Your task to perform on an android device: Search for seafood restaurants on Google Maps Image 0: 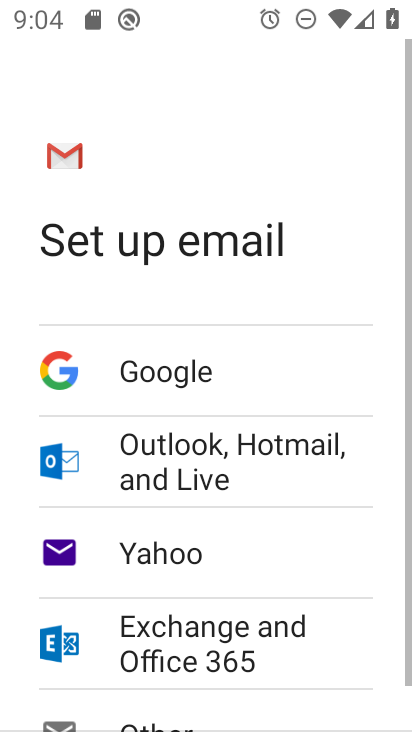
Step 0: press home button
Your task to perform on an android device: Search for seafood restaurants on Google Maps Image 1: 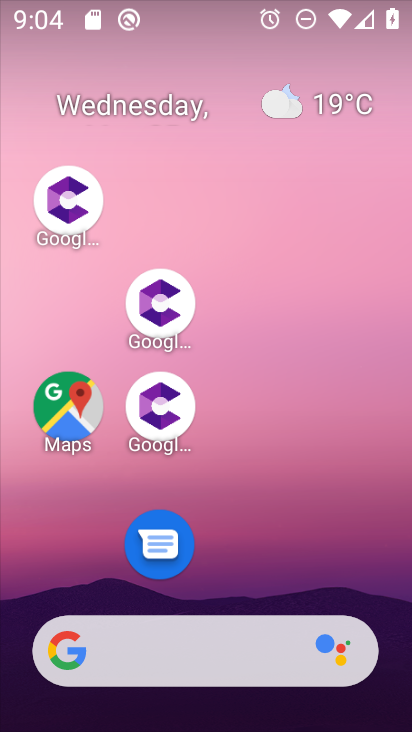
Step 1: click (55, 397)
Your task to perform on an android device: Search for seafood restaurants on Google Maps Image 2: 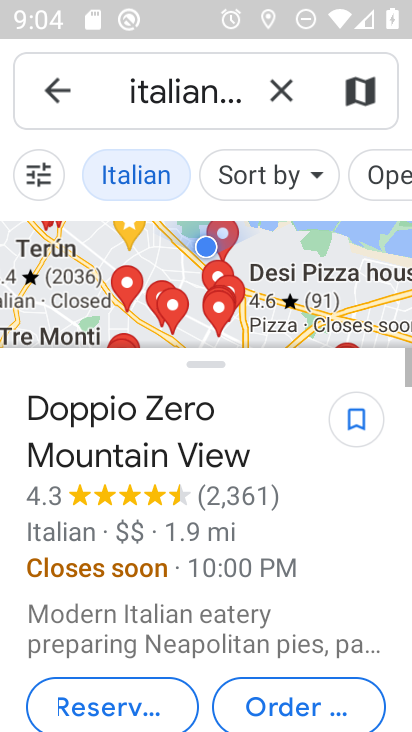
Step 2: click (282, 93)
Your task to perform on an android device: Search for seafood restaurants on Google Maps Image 3: 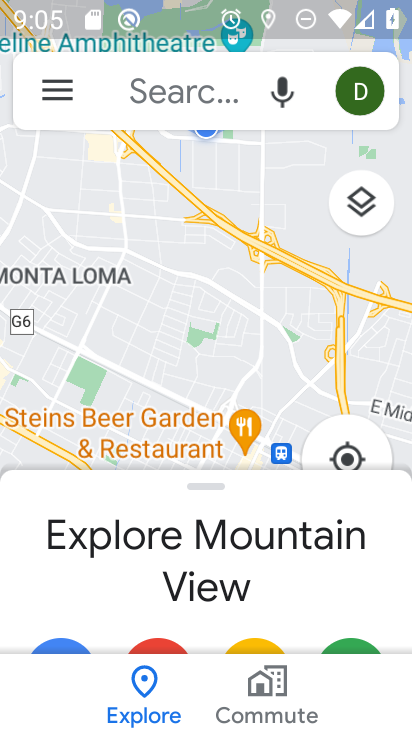
Step 3: click (134, 81)
Your task to perform on an android device: Search for seafood restaurants on Google Maps Image 4: 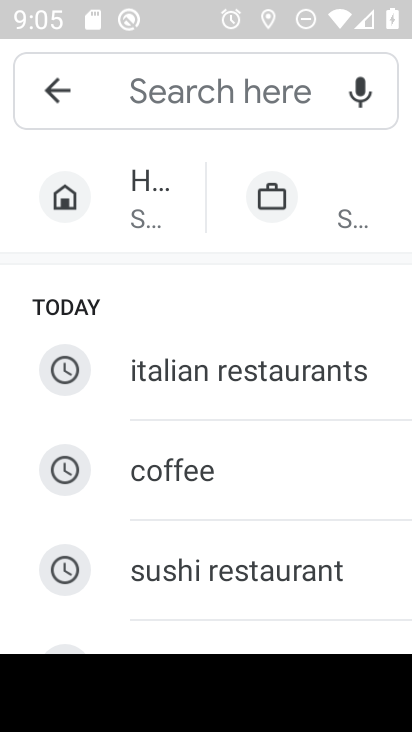
Step 4: type "seafood "
Your task to perform on an android device: Search for seafood restaurants on Google Maps Image 5: 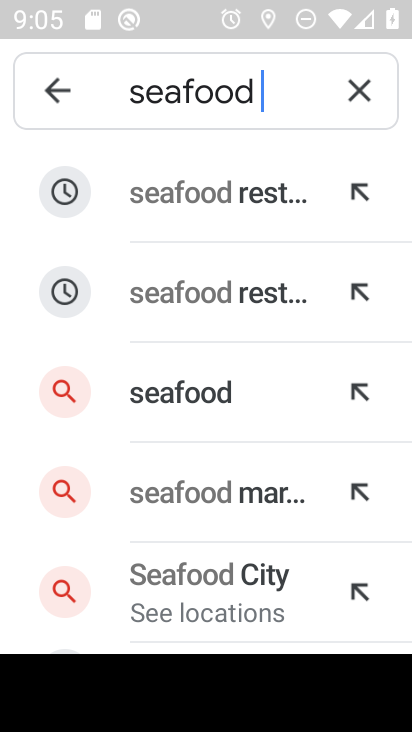
Step 5: click (252, 191)
Your task to perform on an android device: Search for seafood restaurants on Google Maps Image 6: 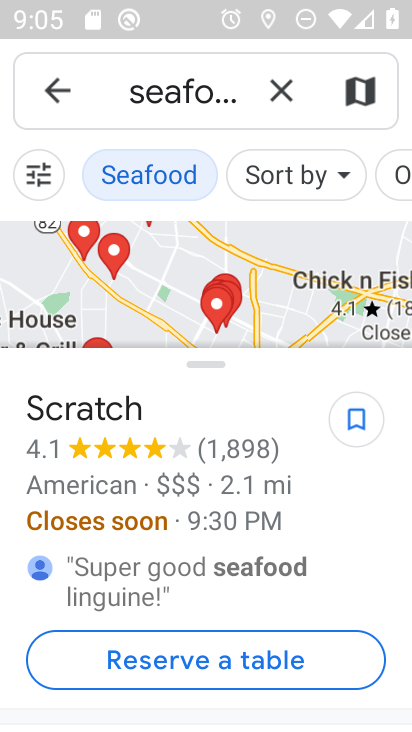
Step 6: task complete